Your task to perform on an android device: Go to Reddit.com Image 0: 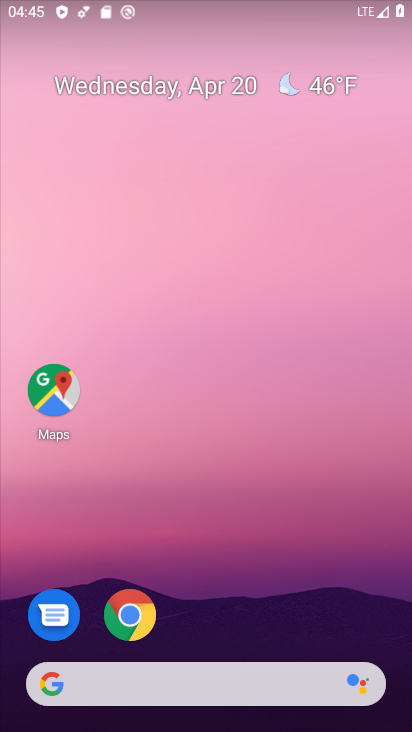
Step 0: click (120, 632)
Your task to perform on an android device: Go to Reddit.com Image 1: 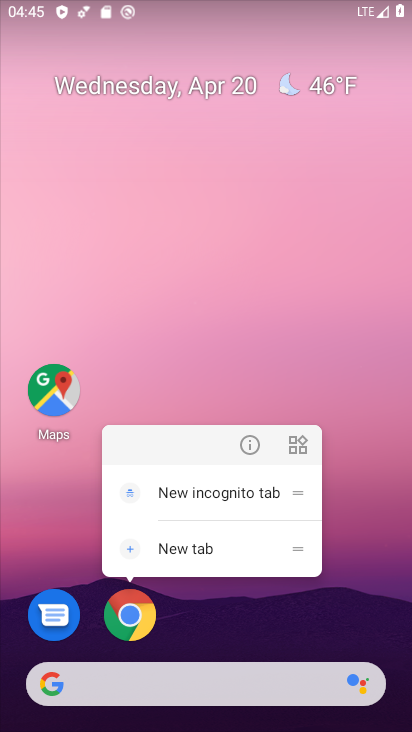
Step 1: click (134, 607)
Your task to perform on an android device: Go to Reddit.com Image 2: 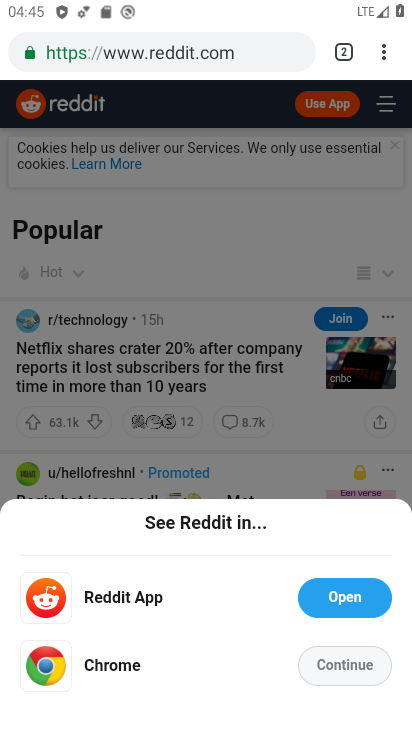
Step 2: click (220, 242)
Your task to perform on an android device: Go to Reddit.com Image 3: 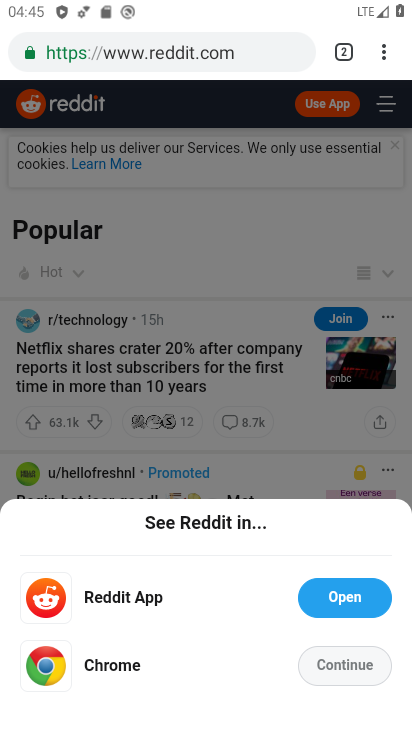
Step 3: click (342, 659)
Your task to perform on an android device: Go to Reddit.com Image 4: 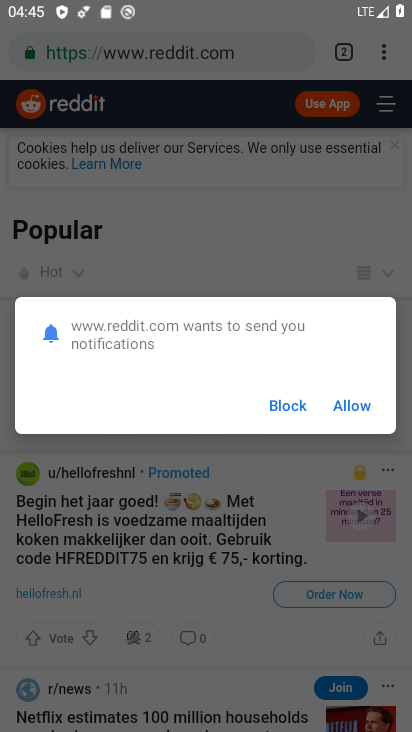
Step 4: click (277, 404)
Your task to perform on an android device: Go to Reddit.com Image 5: 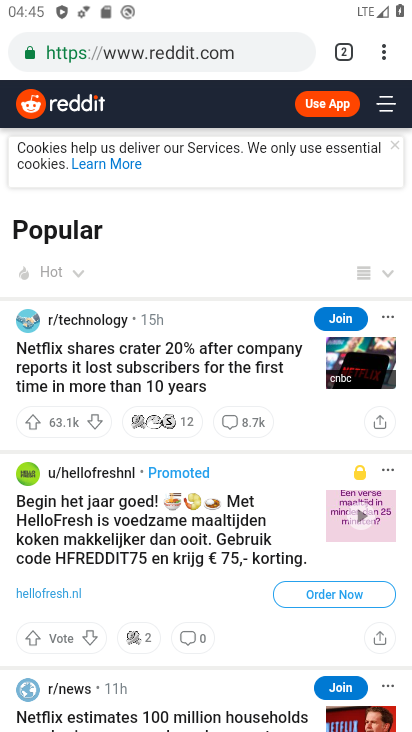
Step 5: task complete